Your task to perform on an android device: Open the stopwatch Image 0: 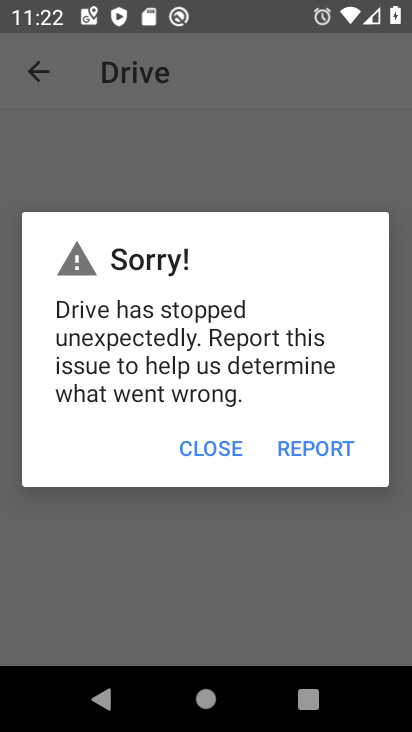
Step 0: press home button
Your task to perform on an android device: Open the stopwatch Image 1: 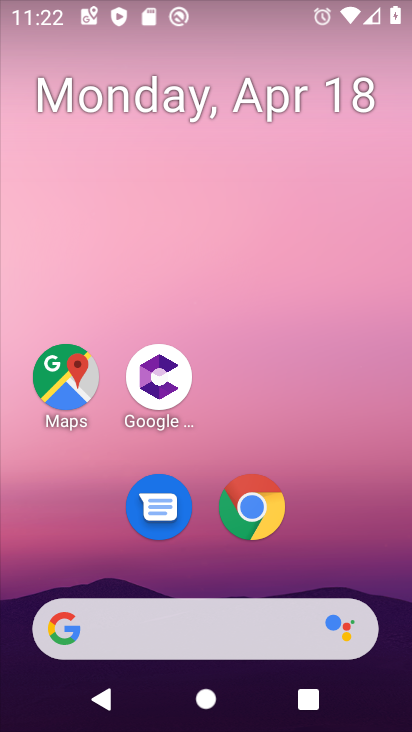
Step 1: drag from (254, 666) to (224, 278)
Your task to perform on an android device: Open the stopwatch Image 2: 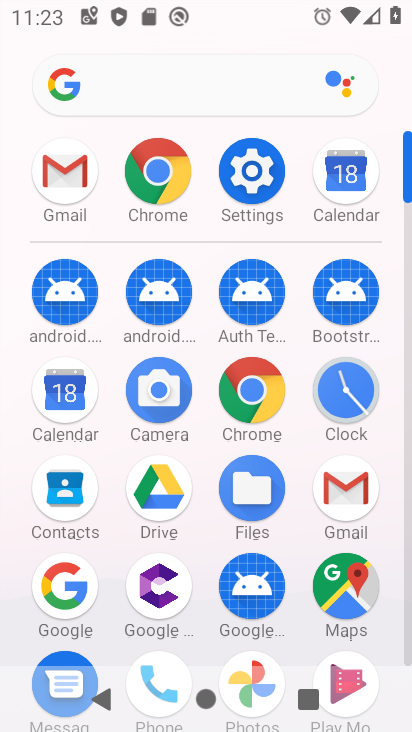
Step 2: click (331, 395)
Your task to perform on an android device: Open the stopwatch Image 3: 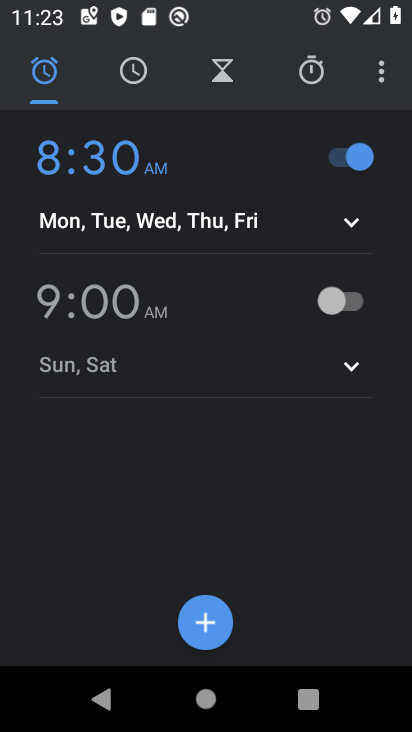
Step 3: click (332, 76)
Your task to perform on an android device: Open the stopwatch Image 4: 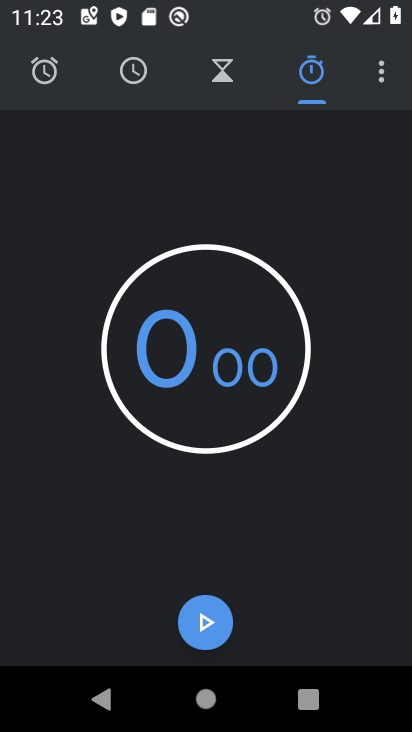
Step 4: click (210, 640)
Your task to perform on an android device: Open the stopwatch Image 5: 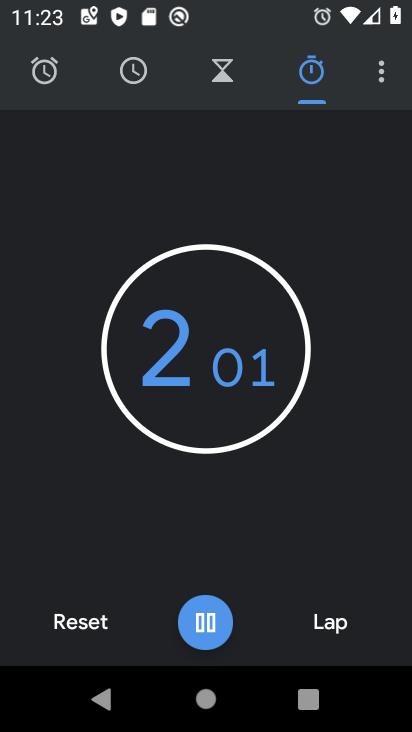
Step 5: click (210, 614)
Your task to perform on an android device: Open the stopwatch Image 6: 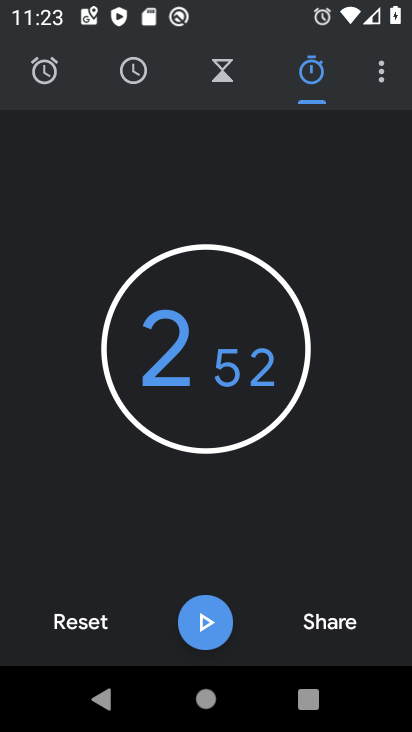
Step 6: task complete